Your task to perform on an android device: Turn off the flashlight Image 0: 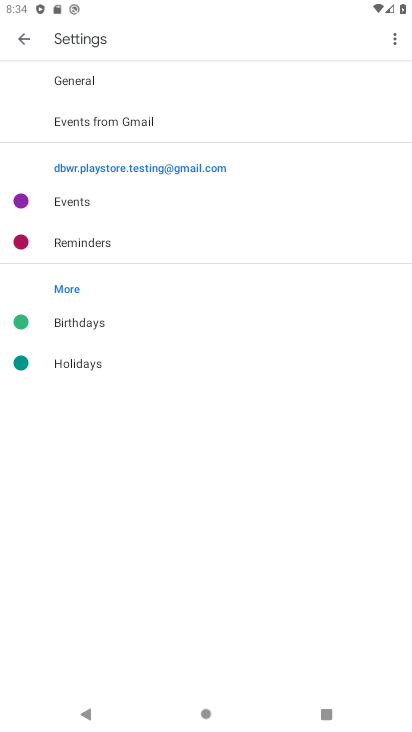
Step 0: press home button
Your task to perform on an android device: Turn off the flashlight Image 1: 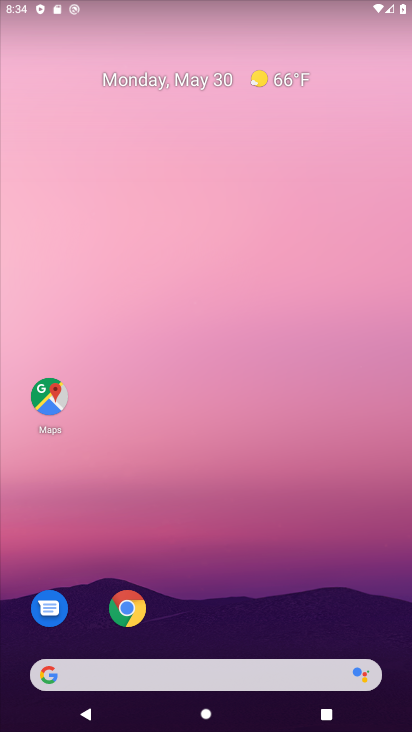
Step 1: drag from (223, 708) to (212, 160)
Your task to perform on an android device: Turn off the flashlight Image 2: 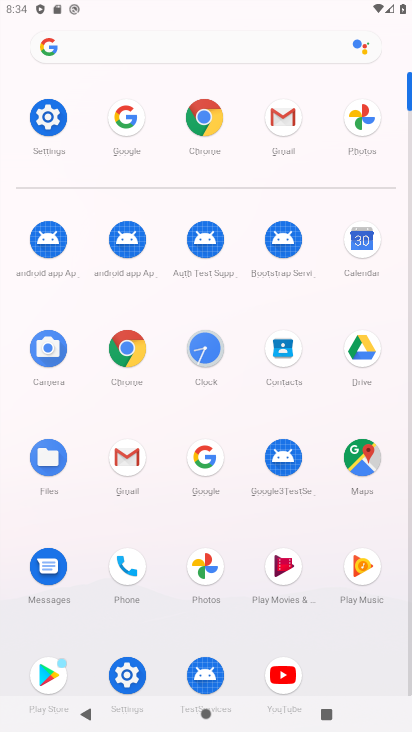
Step 2: click (43, 112)
Your task to perform on an android device: Turn off the flashlight Image 3: 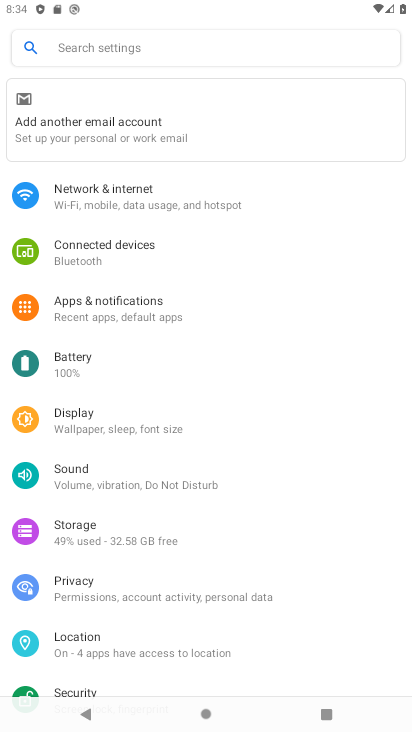
Step 3: task complete